Your task to perform on an android device: set default search engine in the chrome app Image 0: 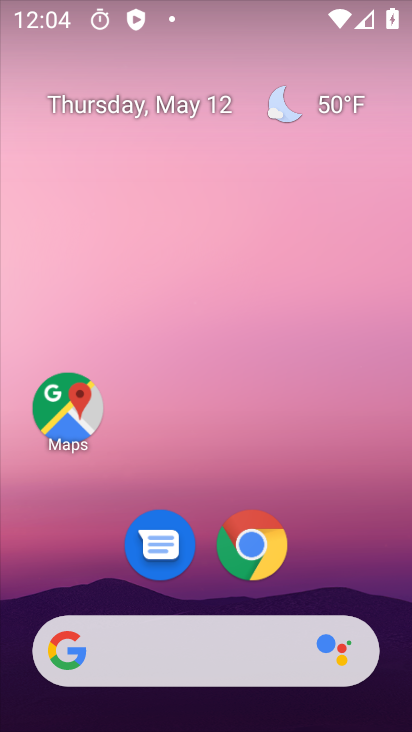
Step 0: click (266, 540)
Your task to perform on an android device: set default search engine in the chrome app Image 1: 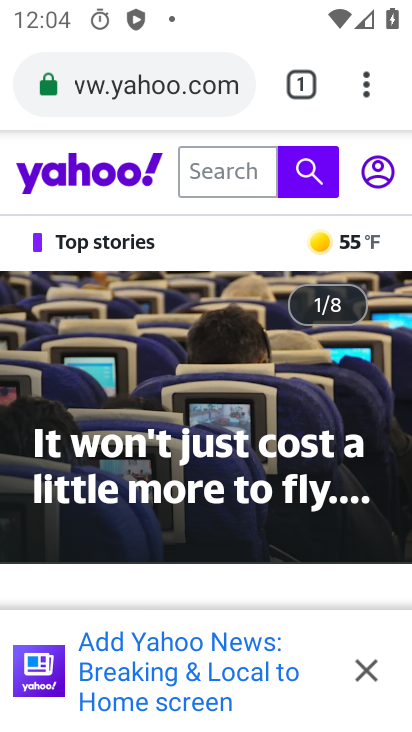
Step 1: drag from (377, 73) to (96, 595)
Your task to perform on an android device: set default search engine in the chrome app Image 2: 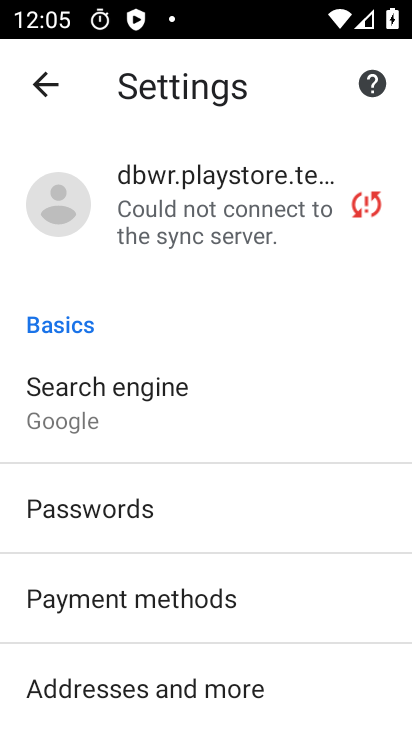
Step 2: click (120, 428)
Your task to perform on an android device: set default search engine in the chrome app Image 3: 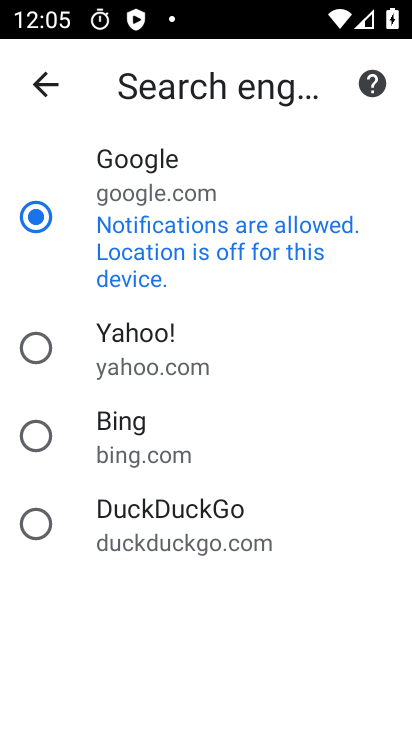
Step 3: click (98, 480)
Your task to perform on an android device: set default search engine in the chrome app Image 4: 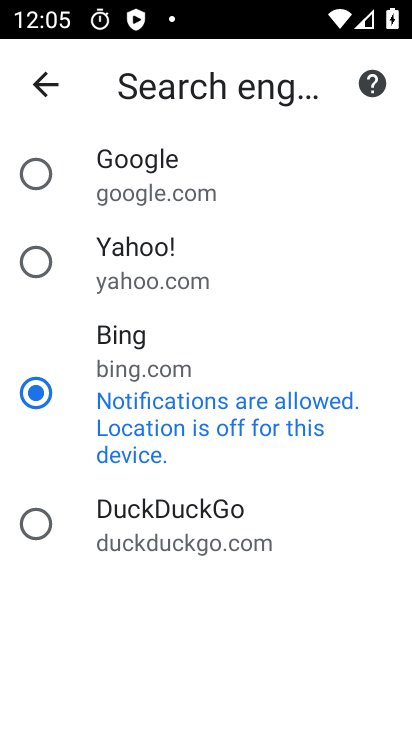
Step 4: task complete